Your task to perform on an android device: Add macbook air to the cart on bestbuy.com, then select checkout. Image 0: 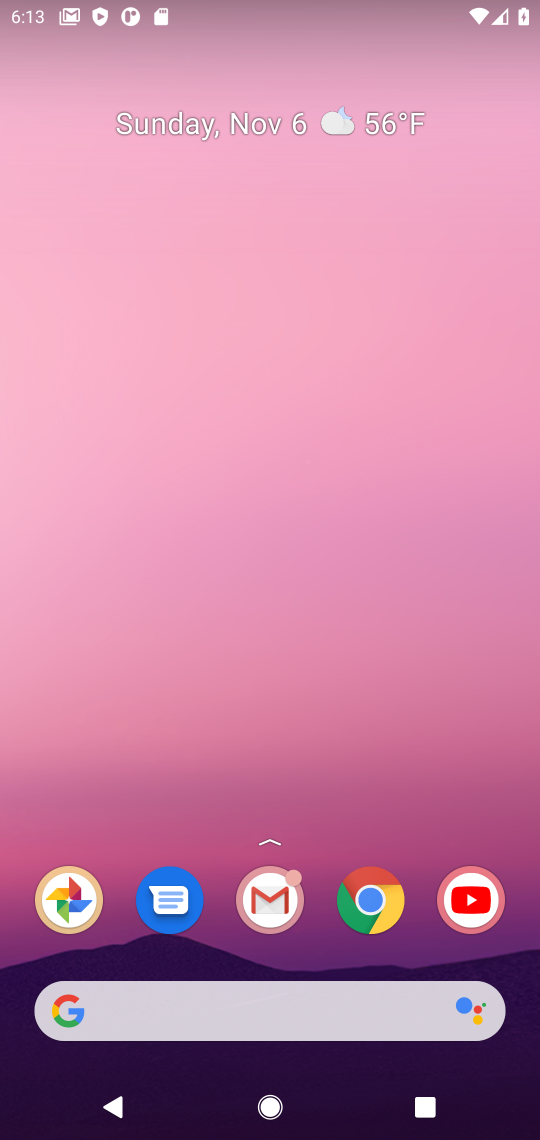
Step 0: drag from (303, 967) to (342, 7)
Your task to perform on an android device: Add macbook air to the cart on bestbuy.com, then select checkout. Image 1: 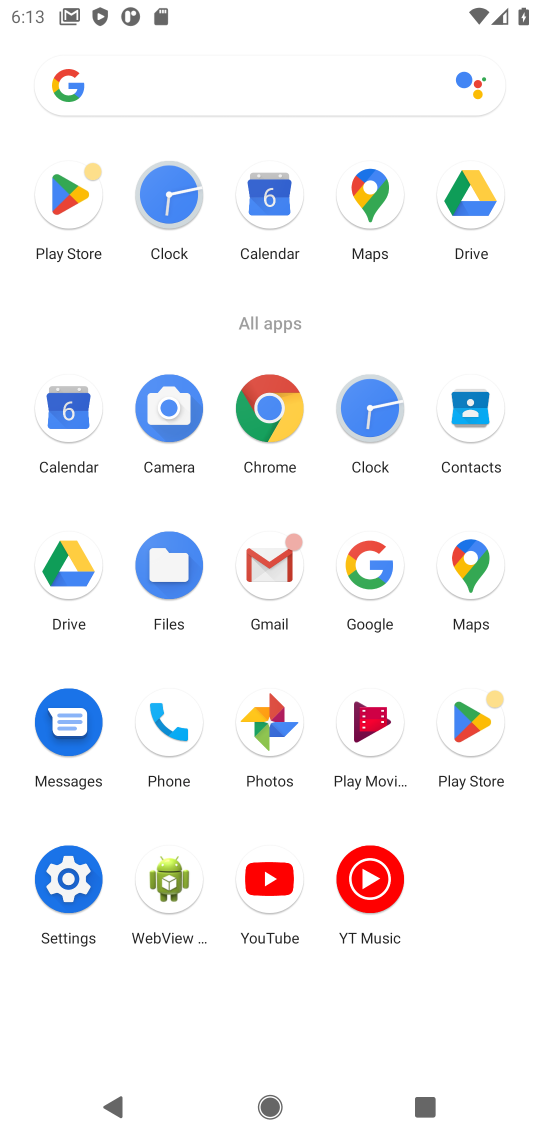
Step 1: click (261, 412)
Your task to perform on an android device: Add macbook air to the cart on bestbuy.com, then select checkout. Image 2: 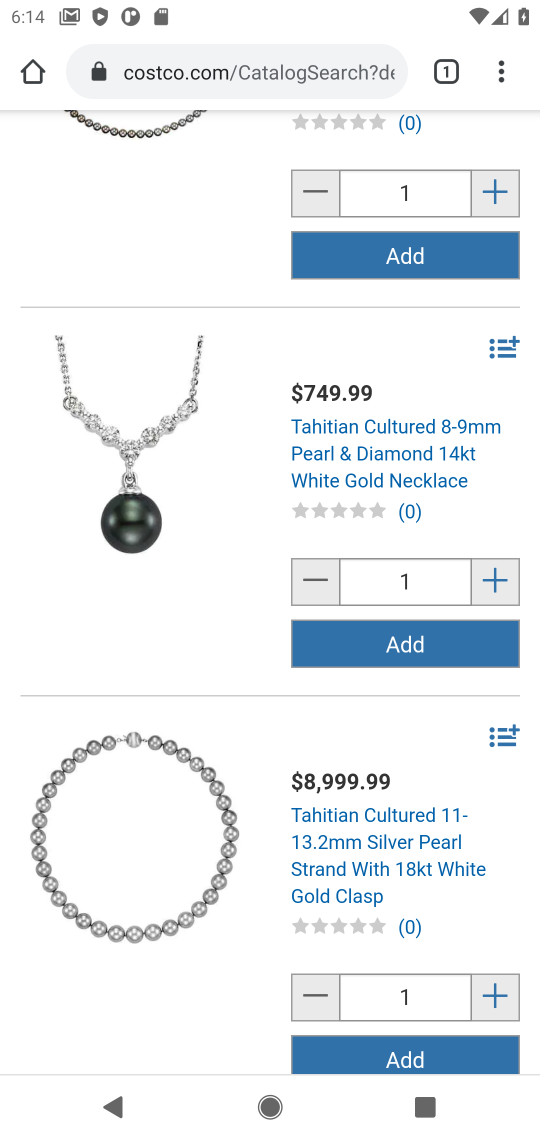
Step 2: click (268, 69)
Your task to perform on an android device: Add macbook air to the cart on bestbuy.com, then select checkout. Image 3: 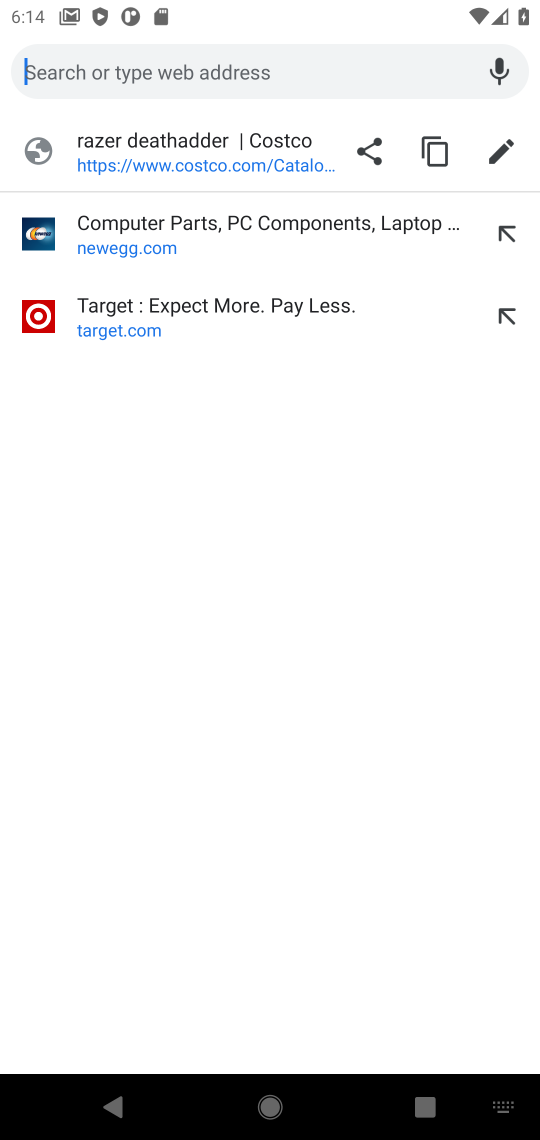
Step 3: type "bestbuy.com"
Your task to perform on an android device: Add macbook air to the cart on bestbuy.com, then select checkout. Image 4: 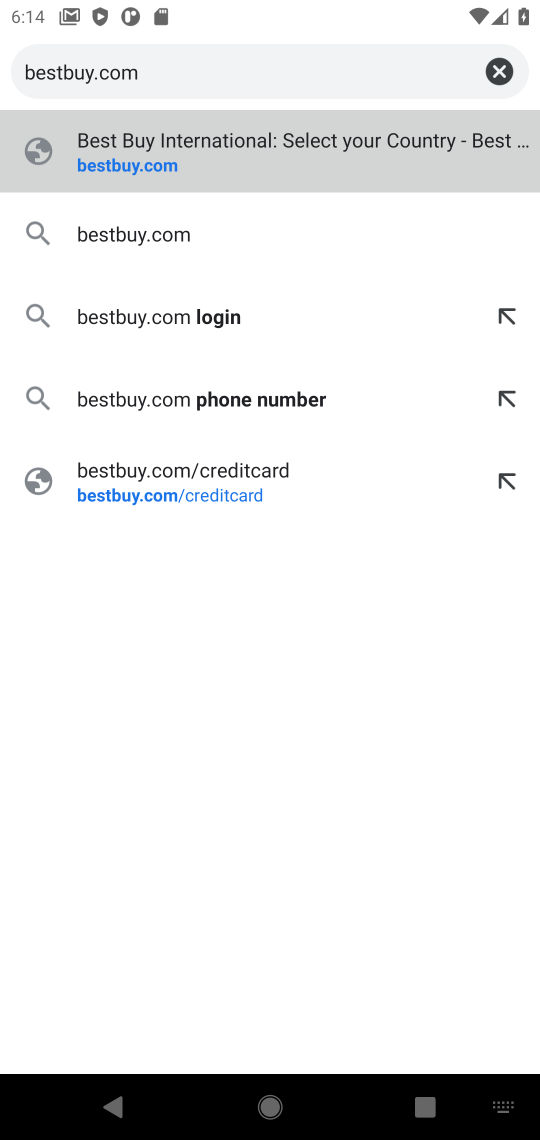
Step 4: press enter
Your task to perform on an android device: Add macbook air to the cart on bestbuy.com, then select checkout. Image 5: 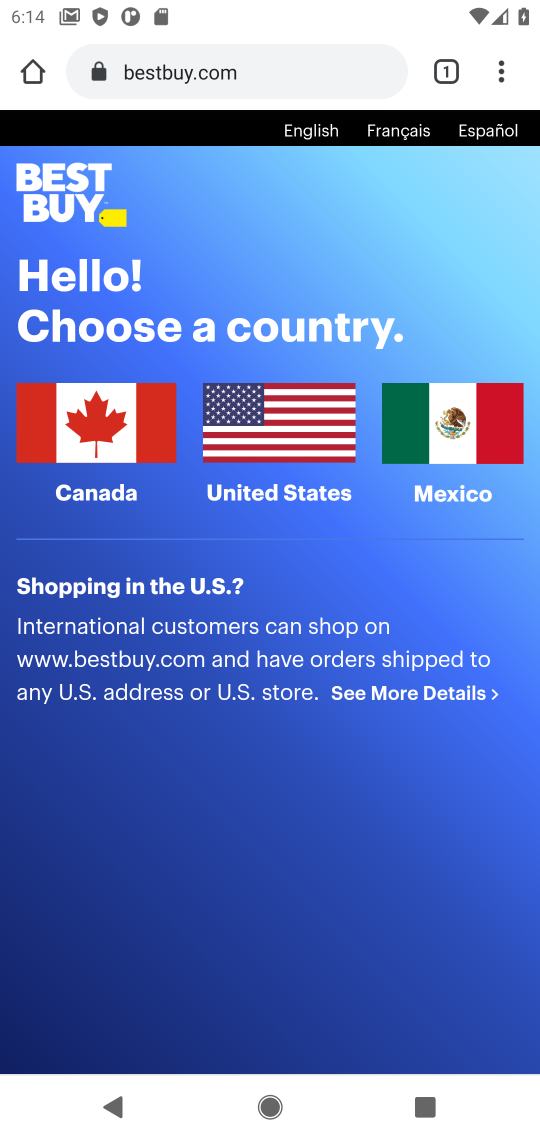
Step 5: click (116, 406)
Your task to perform on an android device: Add macbook air to the cart on bestbuy.com, then select checkout. Image 6: 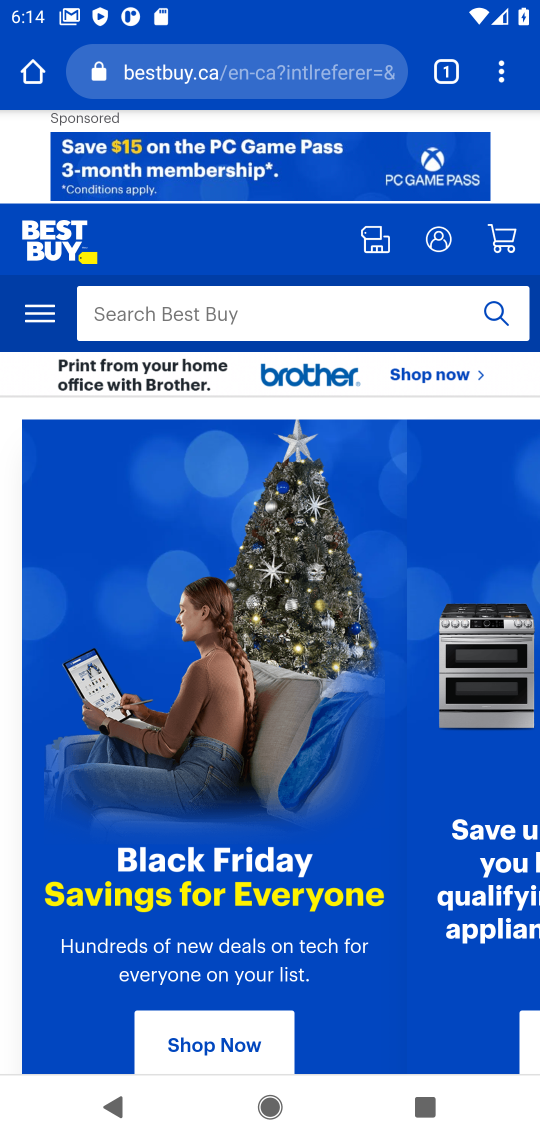
Step 6: click (303, 327)
Your task to perform on an android device: Add macbook air to the cart on bestbuy.com, then select checkout. Image 7: 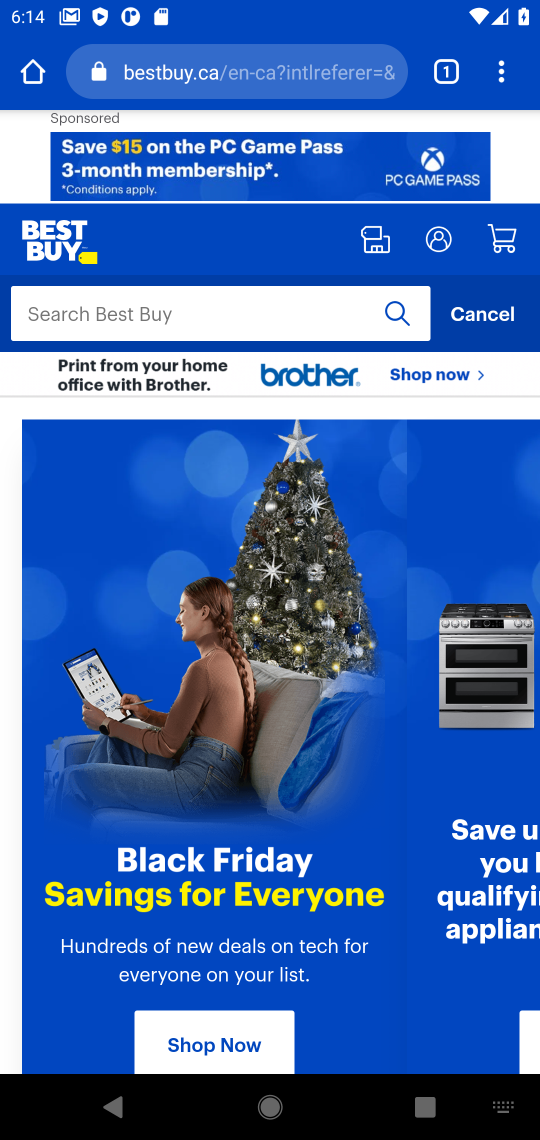
Step 7: type "macbook air"
Your task to perform on an android device: Add macbook air to the cart on bestbuy.com, then select checkout. Image 8: 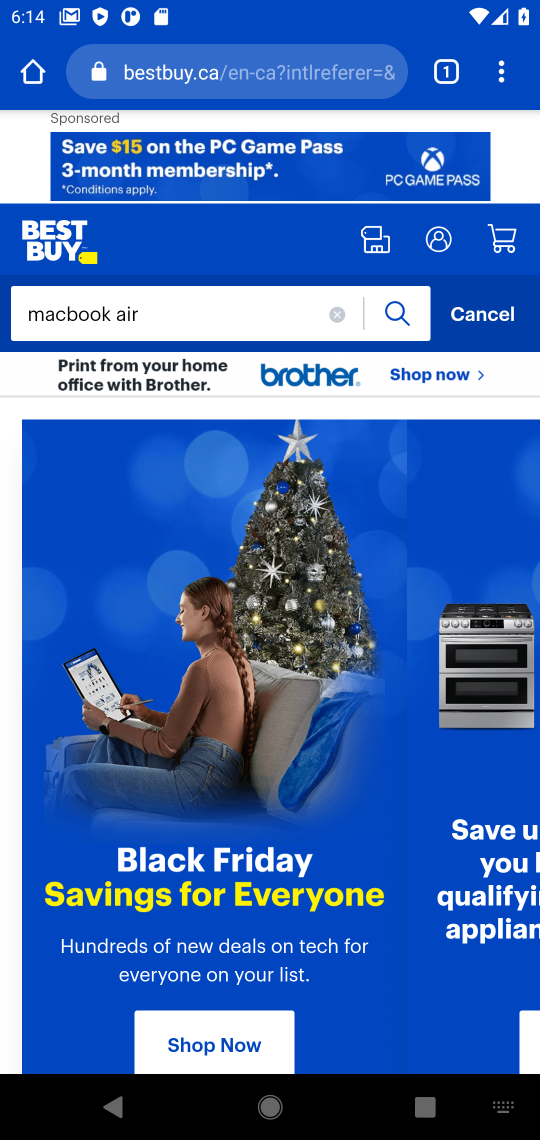
Step 8: press enter
Your task to perform on an android device: Add macbook air to the cart on bestbuy.com, then select checkout. Image 9: 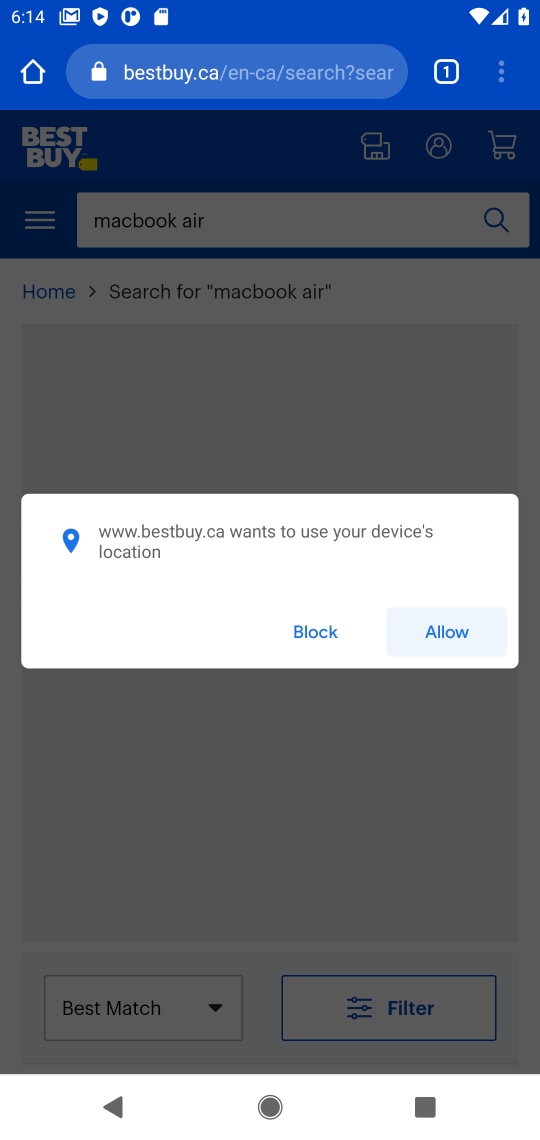
Step 9: click (298, 631)
Your task to perform on an android device: Add macbook air to the cart on bestbuy.com, then select checkout. Image 10: 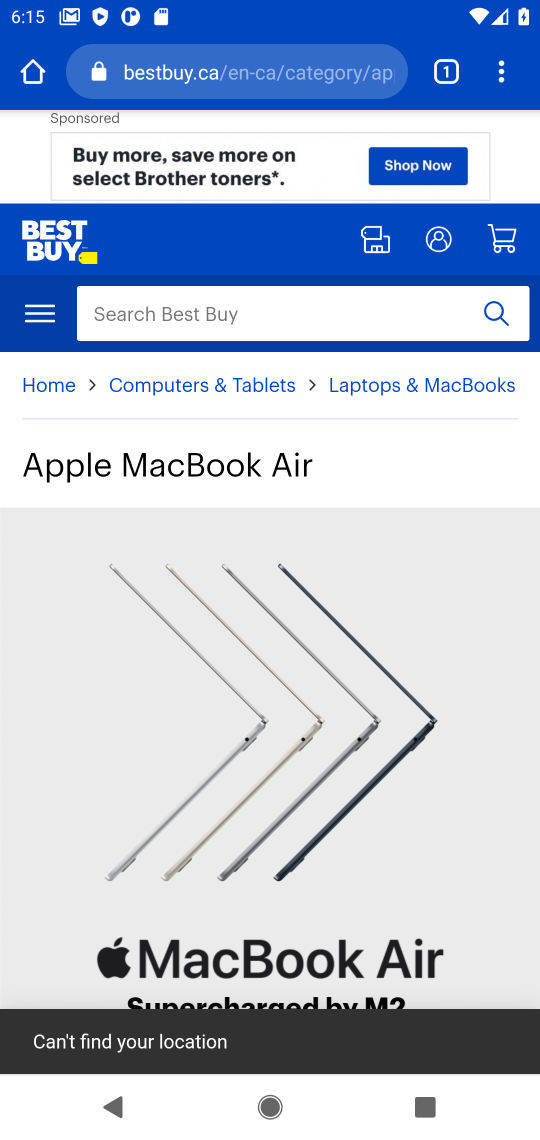
Step 10: drag from (230, 782) to (226, 154)
Your task to perform on an android device: Add macbook air to the cart on bestbuy.com, then select checkout. Image 11: 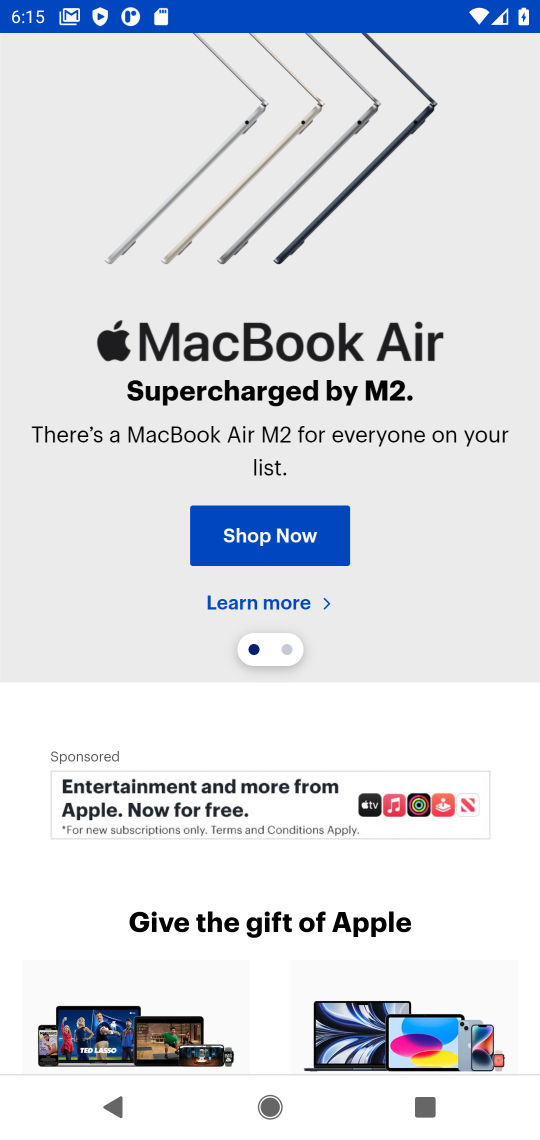
Step 11: click (301, 539)
Your task to perform on an android device: Add macbook air to the cart on bestbuy.com, then select checkout. Image 12: 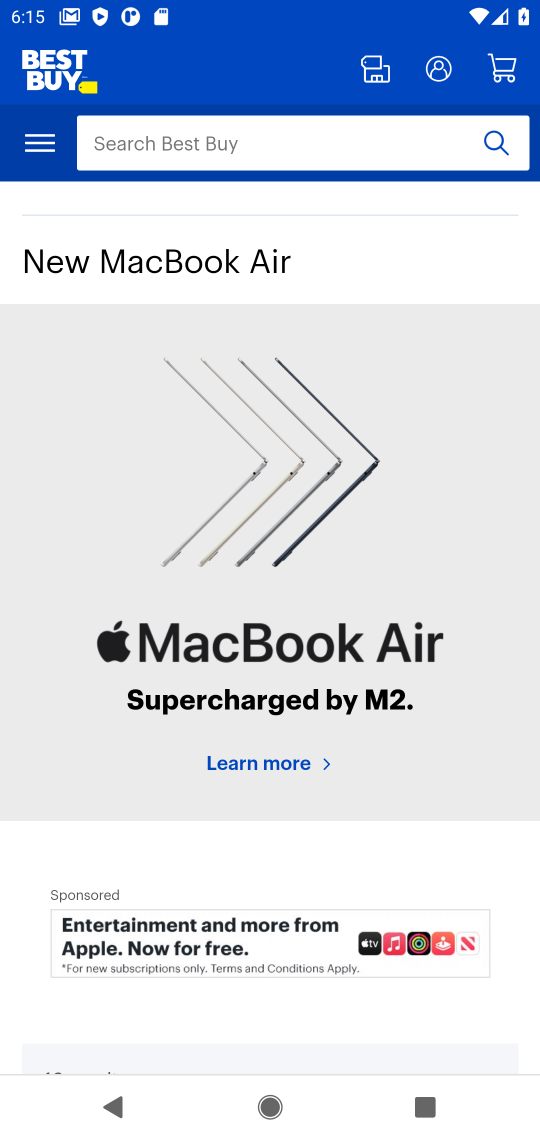
Step 12: drag from (321, 690) to (289, 32)
Your task to perform on an android device: Add macbook air to the cart on bestbuy.com, then select checkout. Image 13: 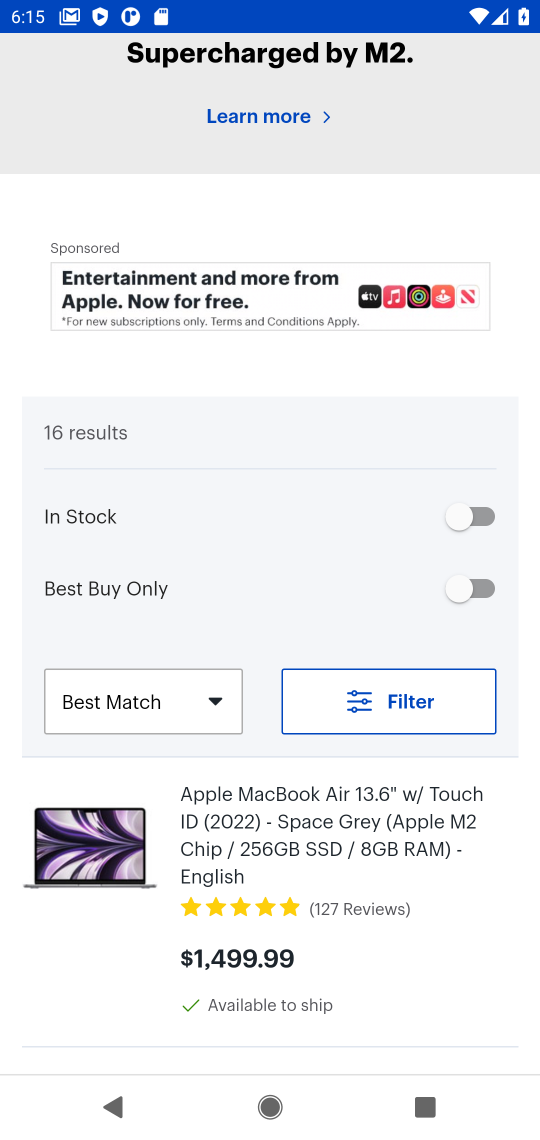
Step 13: drag from (300, 870) to (335, 235)
Your task to perform on an android device: Add macbook air to the cart on bestbuy.com, then select checkout. Image 14: 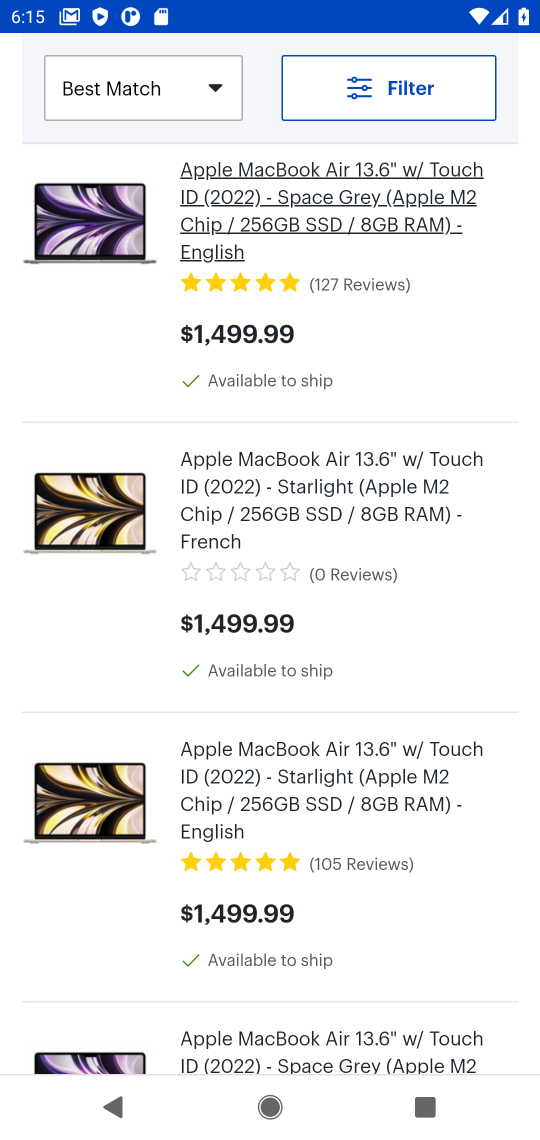
Step 14: click (321, 220)
Your task to perform on an android device: Add macbook air to the cart on bestbuy.com, then select checkout. Image 15: 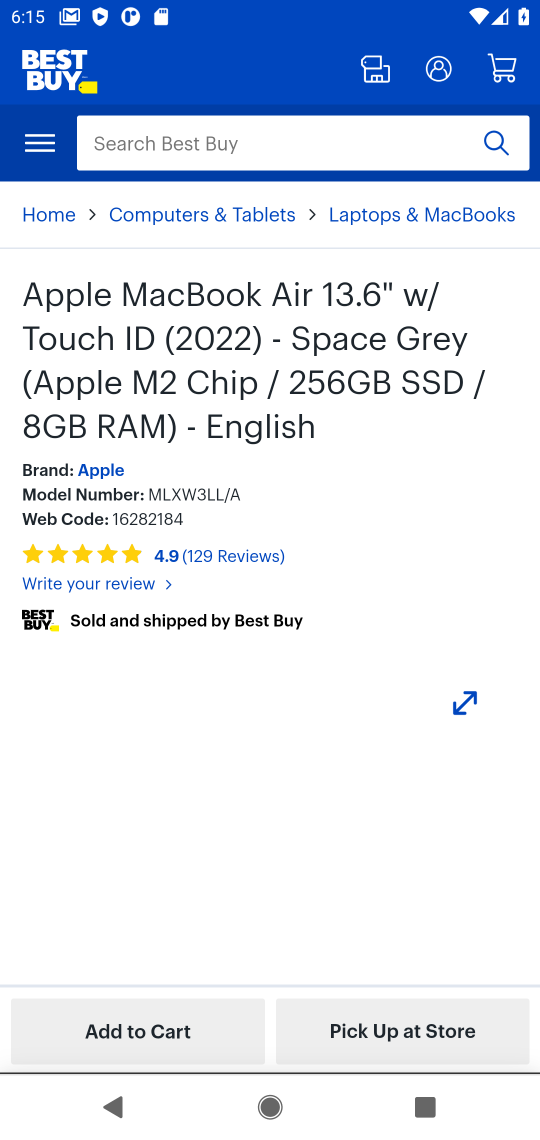
Step 15: drag from (355, 908) to (285, 227)
Your task to perform on an android device: Add macbook air to the cart on bestbuy.com, then select checkout. Image 16: 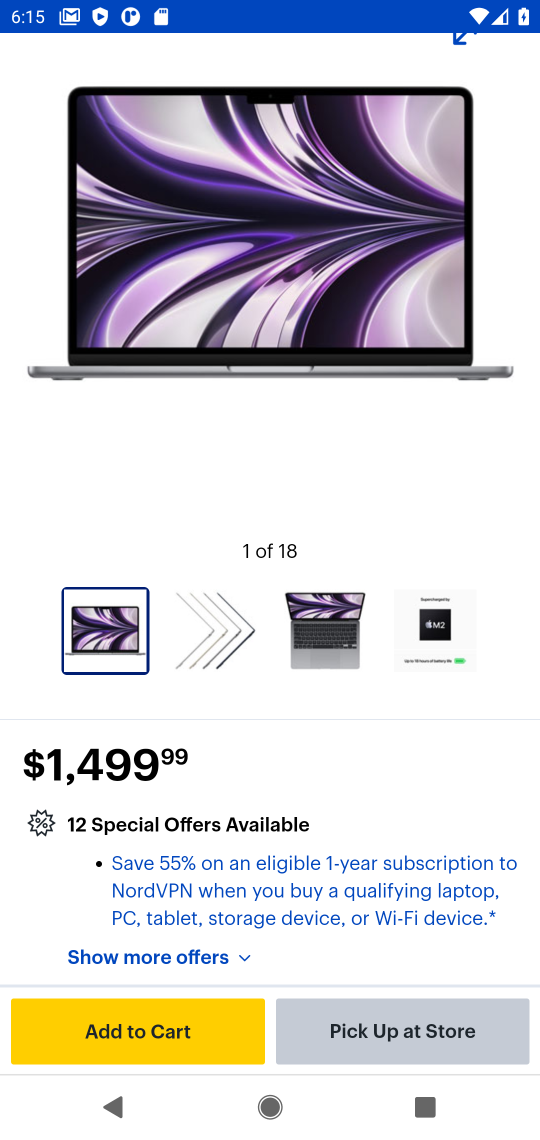
Step 16: drag from (287, 205) to (309, 987)
Your task to perform on an android device: Add macbook air to the cart on bestbuy.com, then select checkout. Image 17: 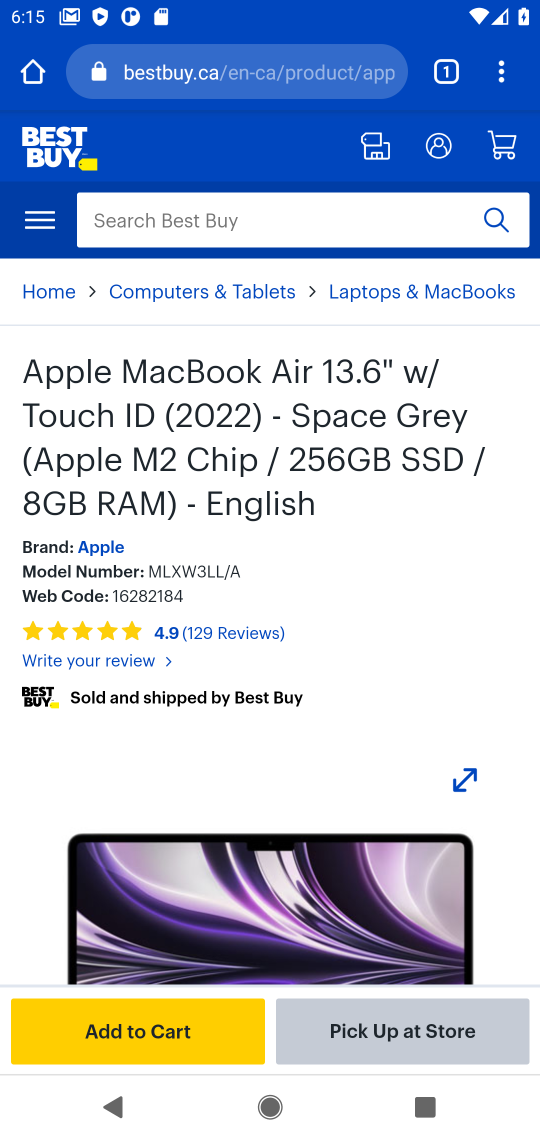
Step 17: click (170, 1036)
Your task to perform on an android device: Add macbook air to the cart on bestbuy.com, then select checkout. Image 18: 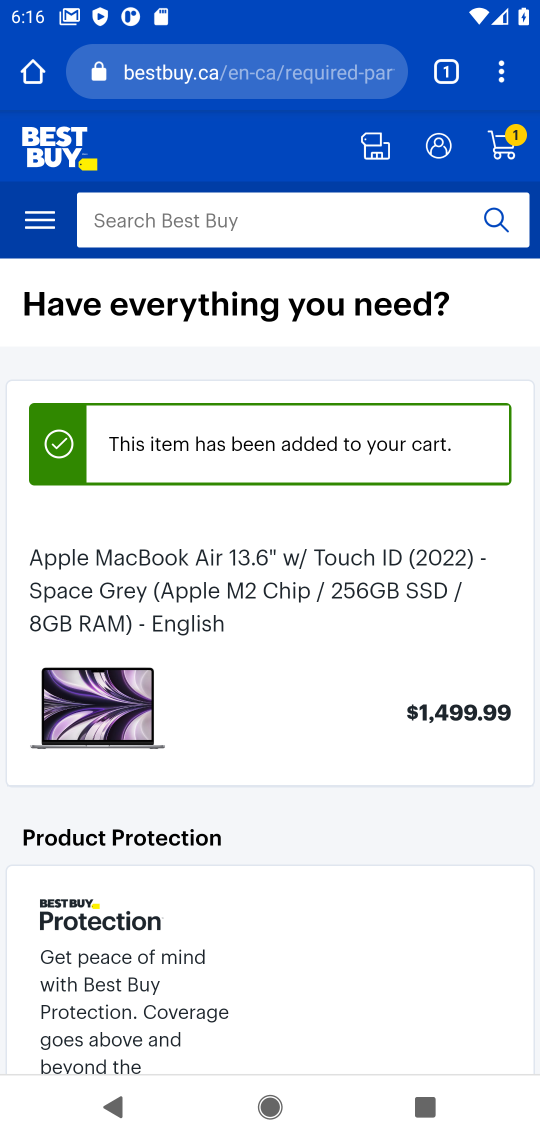
Step 18: drag from (272, 860) to (380, 1107)
Your task to perform on an android device: Add macbook air to the cart on bestbuy.com, then select checkout. Image 19: 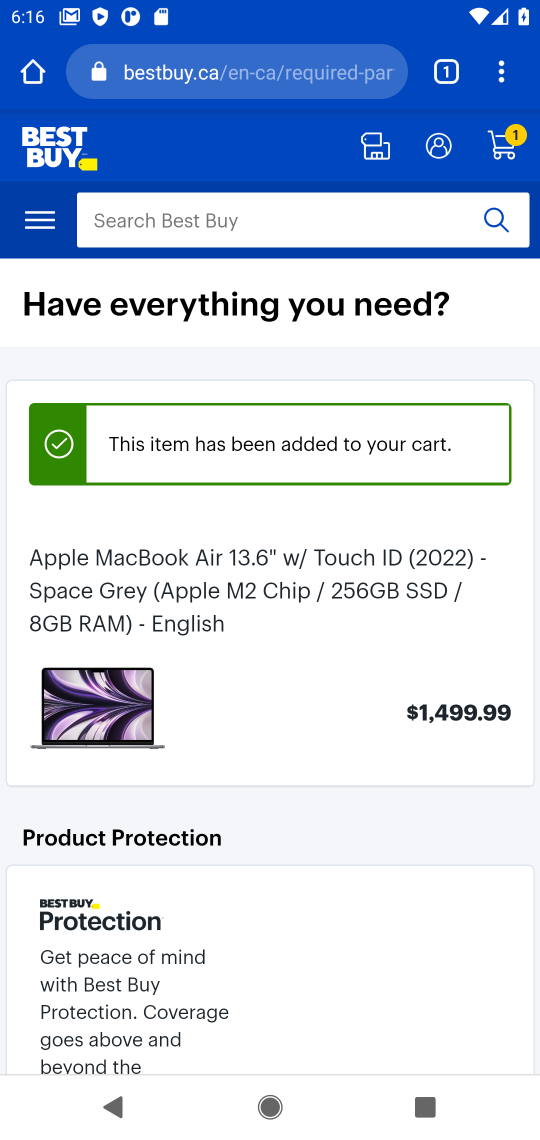
Step 19: click (516, 144)
Your task to perform on an android device: Add macbook air to the cart on bestbuy.com, then select checkout. Image 20: 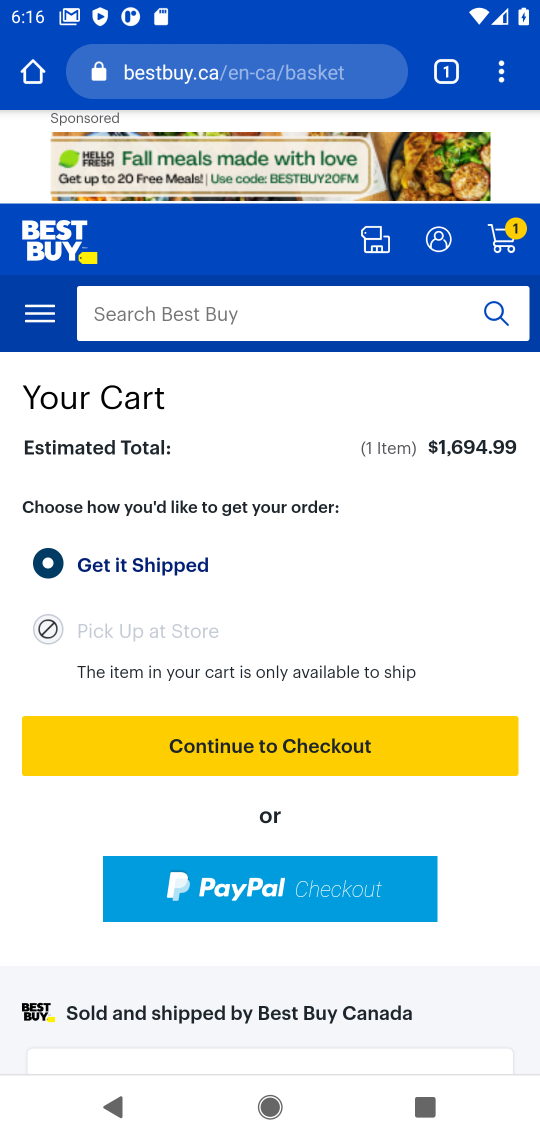
Step 20: click (295, 743)
Your task to perform on an android device: Add macbook air to the cart on bestbuy.com, then select checkout. Image 21: 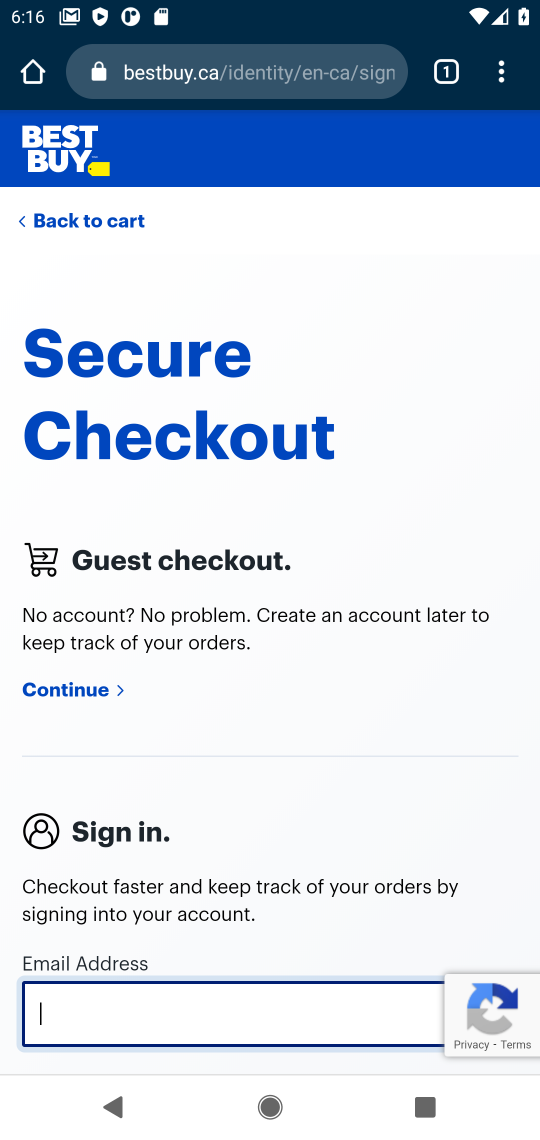
Step 21: task complete